Your task to perform on an android device: Open accessibility settings Image 0: 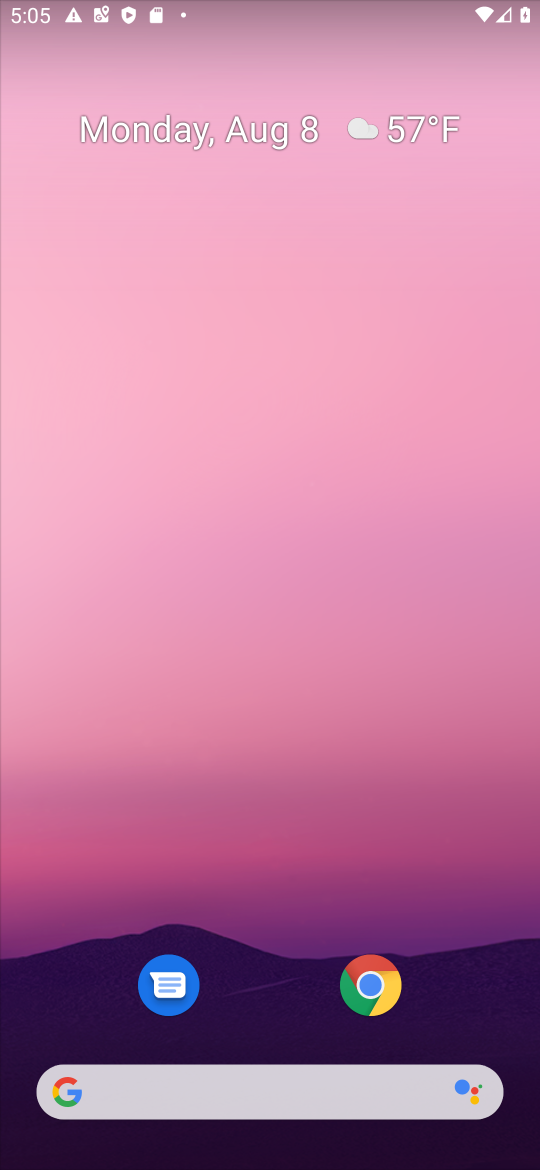
Step 0: drag from (290, 852) to (389, 188)
Your task to perform on an android device: Open accessibility settings Image 1: 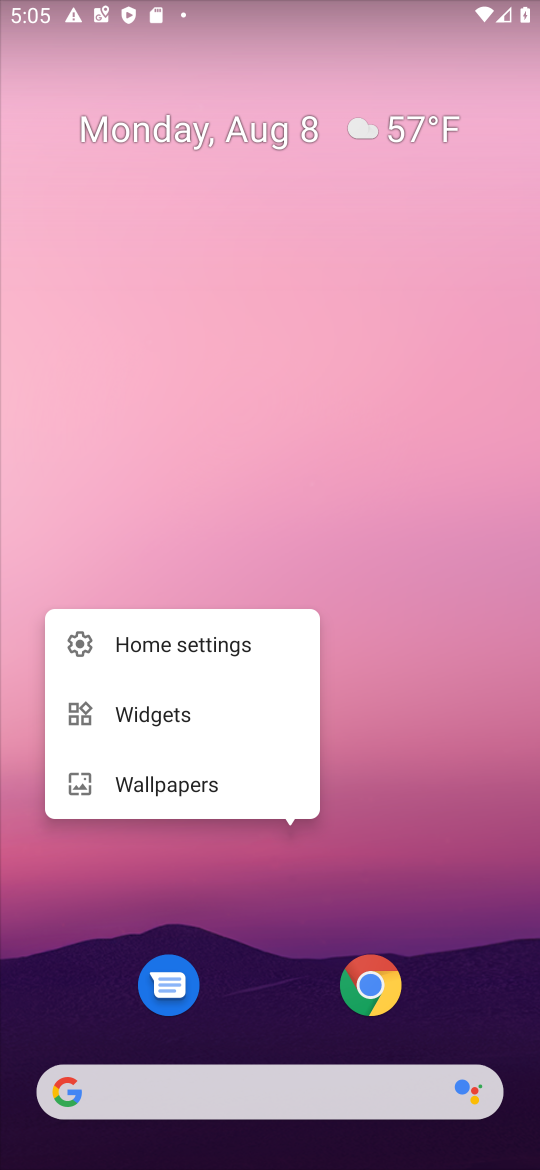
Step 1: drag from (419, 763) to (331, 363)
Your task to perform on an android device: Open accessibility settings Image 2: 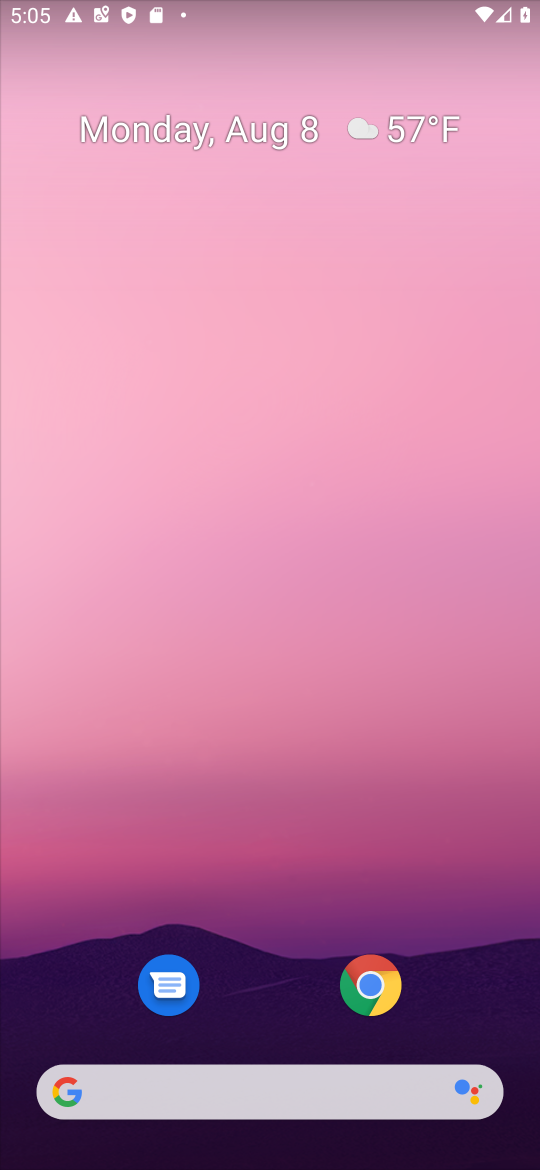
Step 2: drag from (260, 824) to (300, 223)
Your task to perform on an android device: Open accessibility settings Image 3: 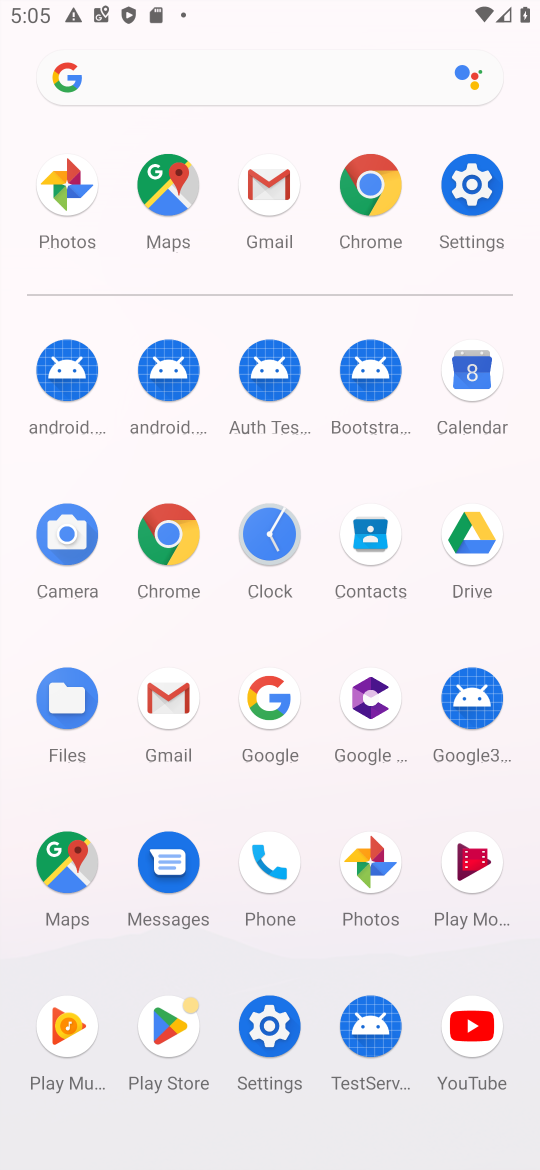
Step 3: click (286, 1022)
Your task to perform on an android device: Open accessibility settings Image 4: 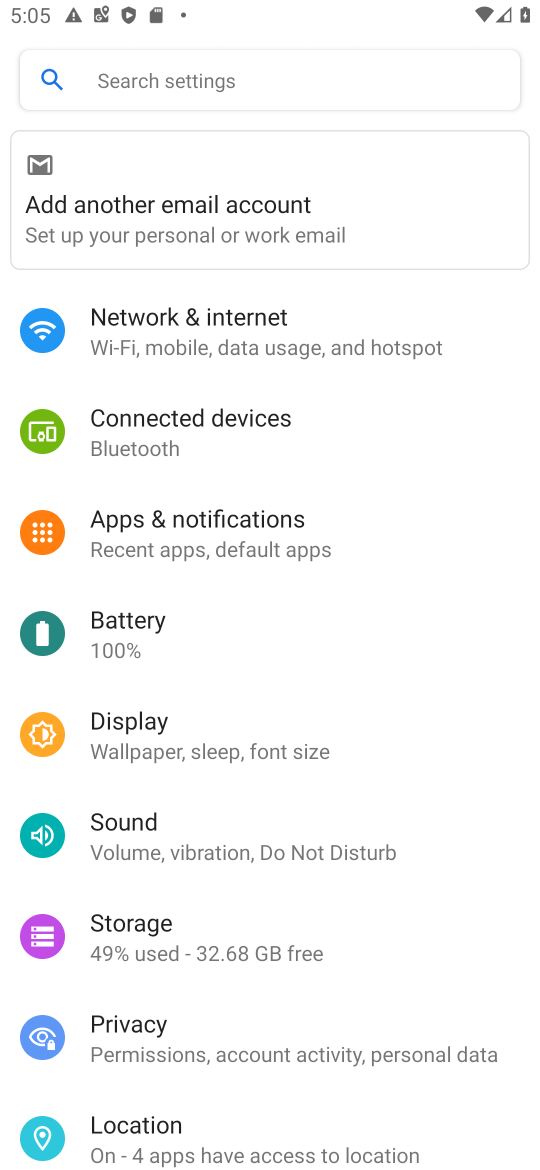
Step 4: task complete